Your task to perform on an android device: set an alarm Image 0: 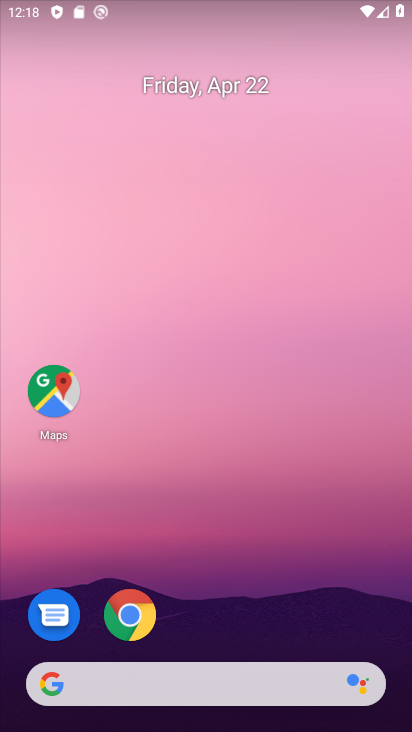
Step 0: drag from (278, 595) to (246, 150)
Your task to perform on an android device: set an alarm Image 1: 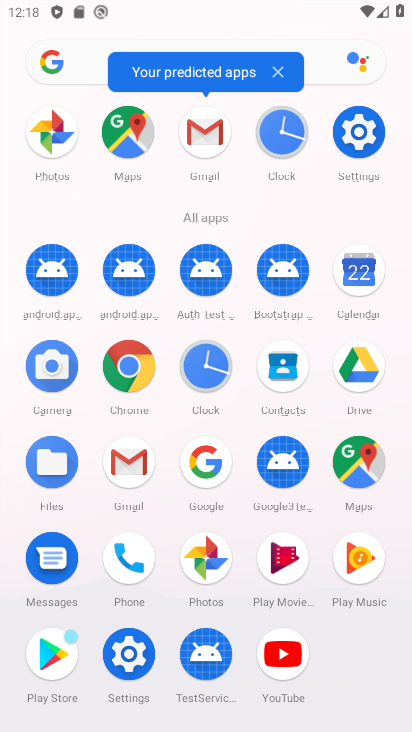
Step 1: click (292, 146)
Your task to perform on an android device: set an alarm Image 2: 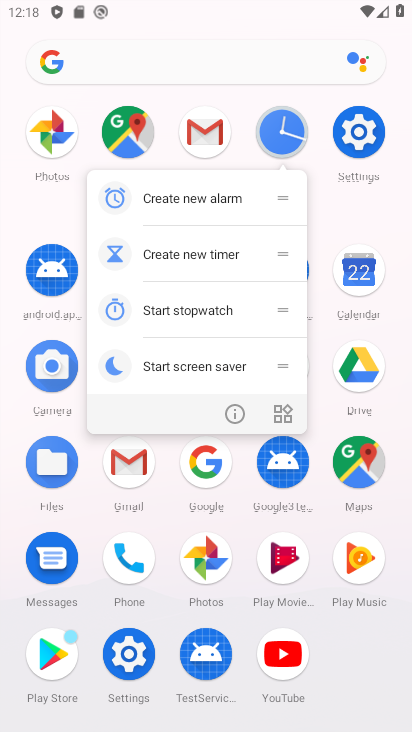
Step 2: click (288, 143)
Your task to perform on an android device: set an alarm Image 3: 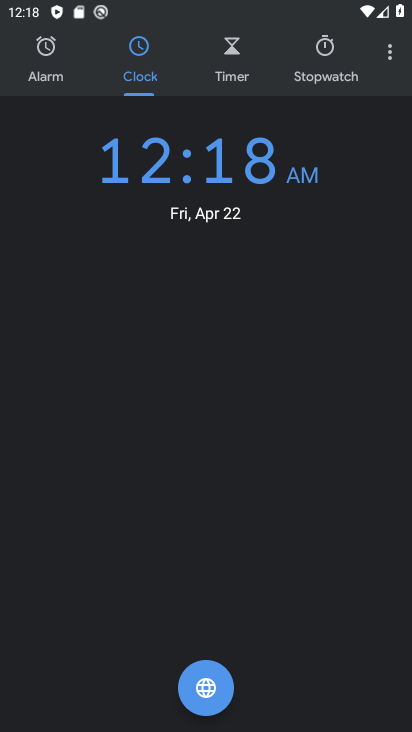
Step 3: click (50, 73)
Your task to perform on an android device: set an alarm Image 4: 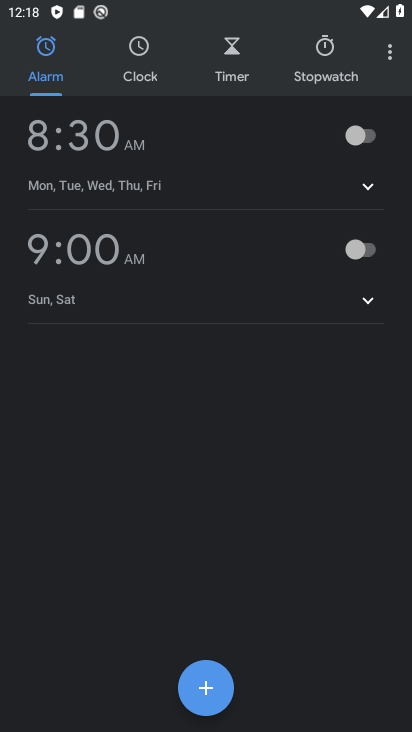
Step 4: click (349, 143)
Your task to perform on an android device: set an alarm Image 5: 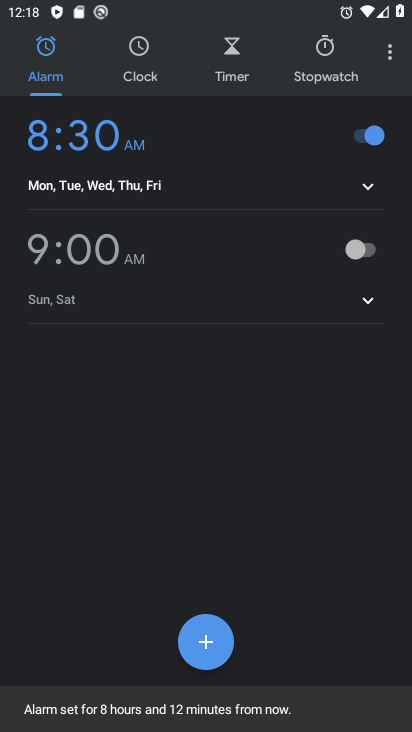
Step 5: task complete